Your task to perform on an android device: What is the recent news? Image 0: 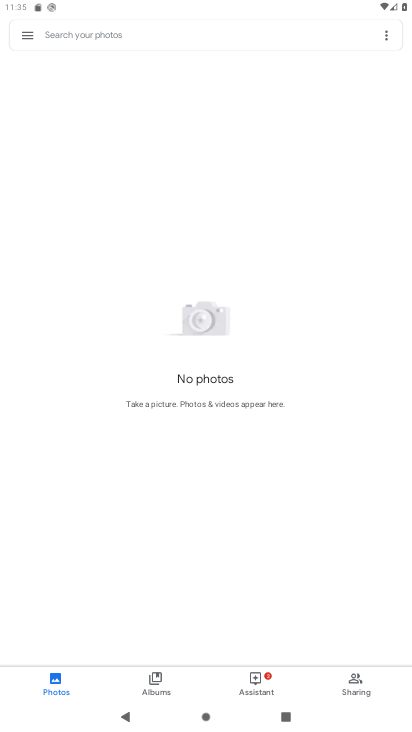
Step 0: press home button
Your task to perform on an android device: What is the recent news? Image 1: 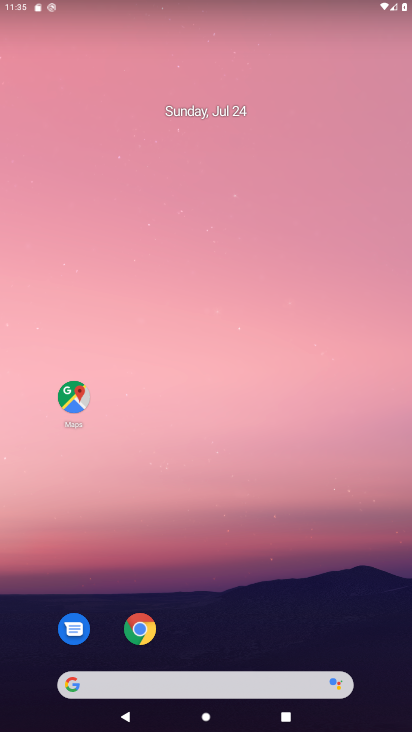
Step 1: click (203, 680)
Your task to perform on an android device: What is the recent news? Image 2: 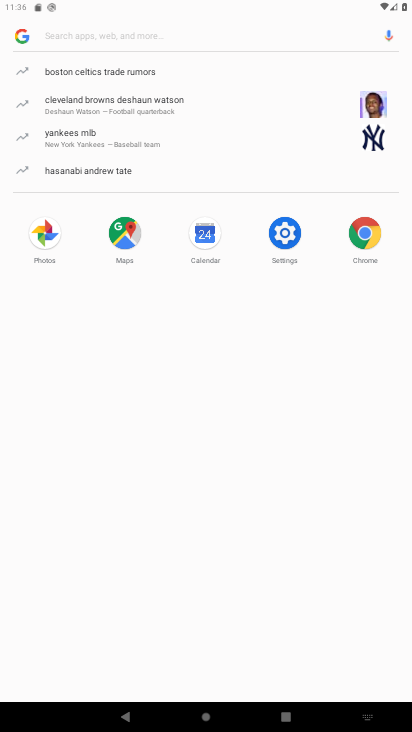
Step 2: type "recent news"
Your task to perform on an android device: What is the recent news? Image 3: 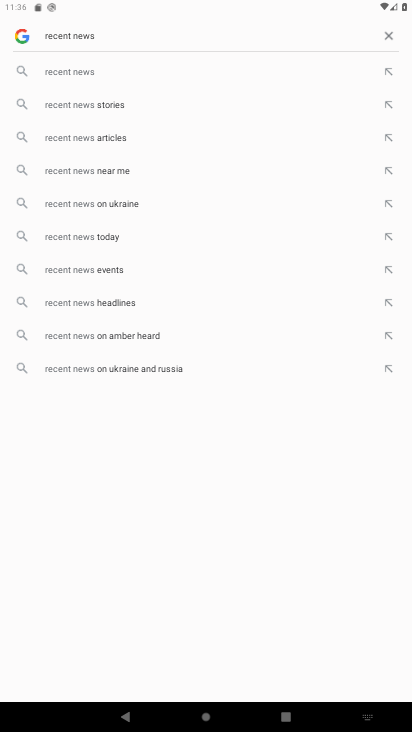
Step 3: click (88, 88)
Your task to perform on an android device: What is the recent news? Image 4: 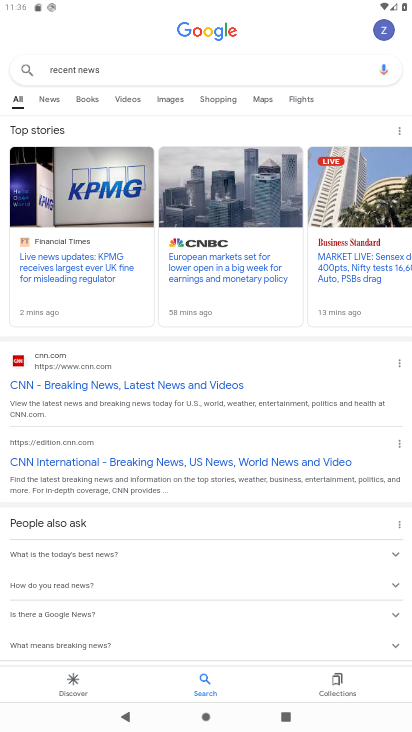
Step 4: task complete